Your task to perform on an android device: Open my contact list Image 0: 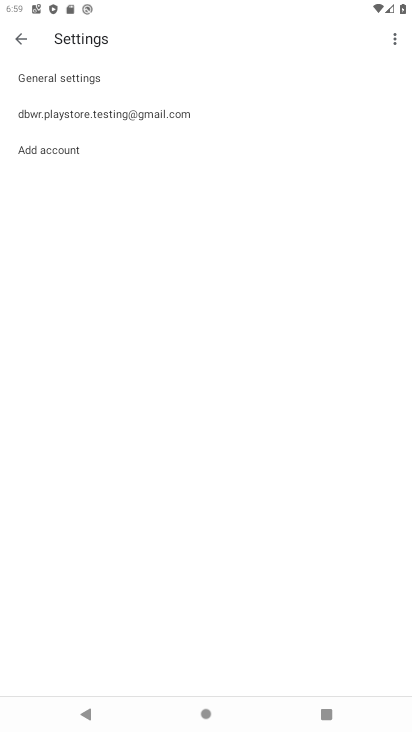
Step 0: press home button
Your task to perform on an android device: Open my contact list Image 1: 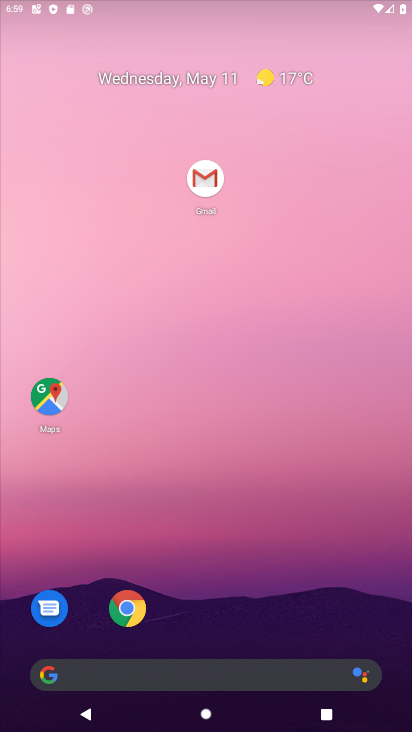
Step 1: drag from (219, 615) to (241, 108)
Your task to perform on an android device: Open my contact list Image 2: 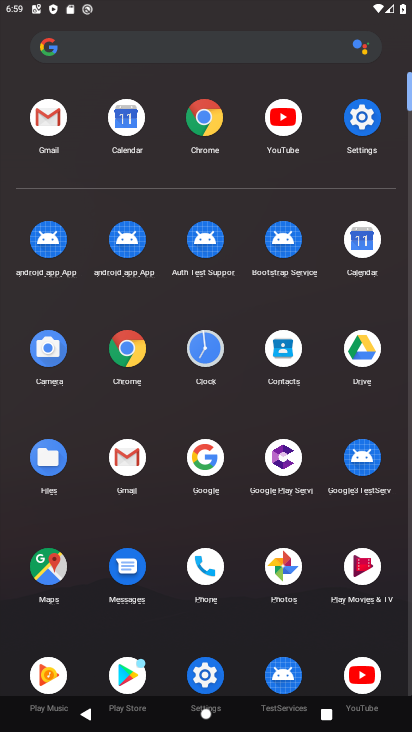
Step 2: click (279, 356)
Your task to perform on an android device: Open my contact list Image 3: 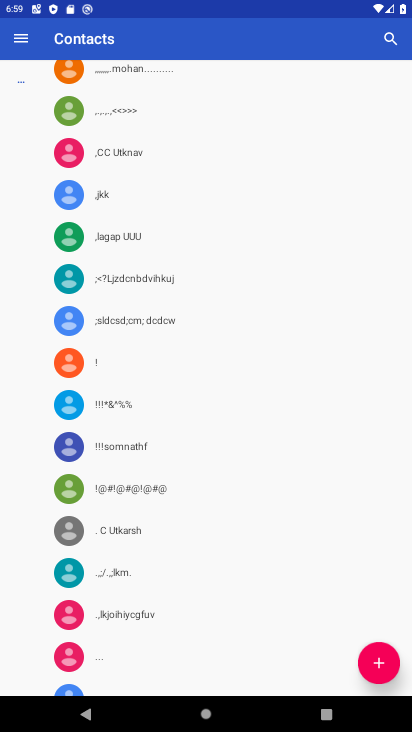
Step 3: task complete